Your task to perform on an android device: Go to sound settings Image 0: 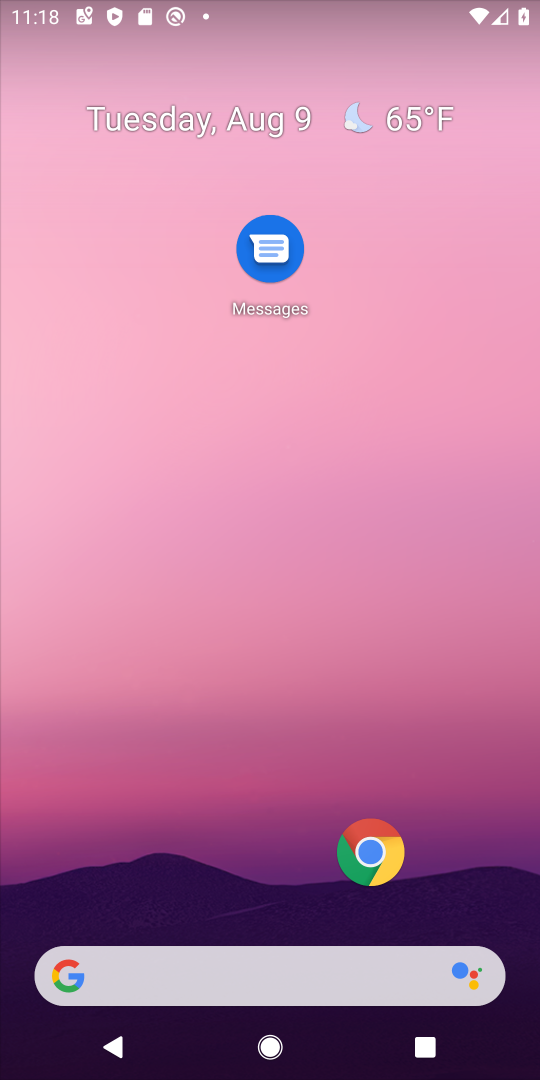
Step 0: drag from (153, 891) to (64, 86)
Your task to perform on an android device: Go to sound settings Image 1: 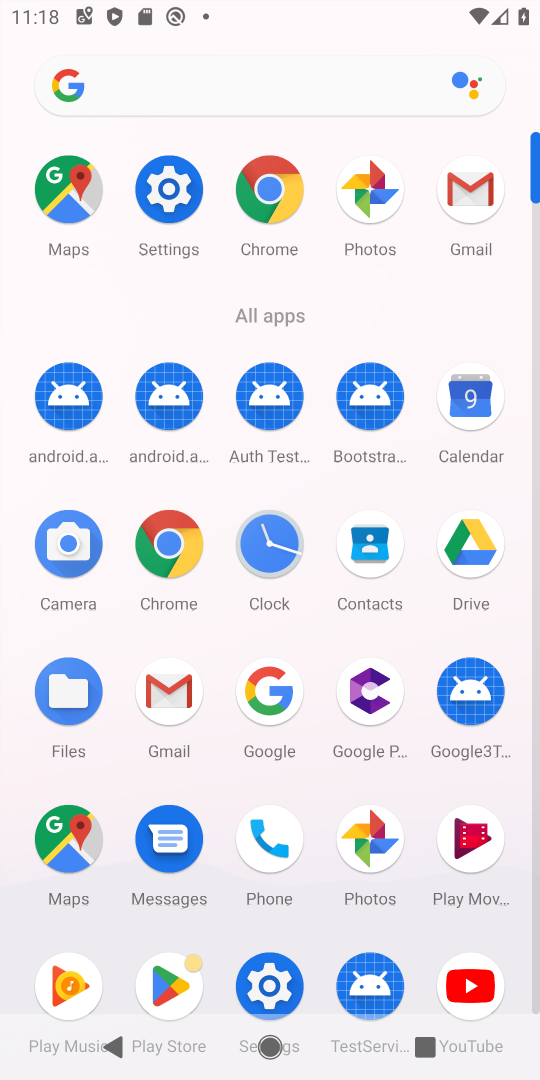
Step 1: click (180, 210)
Your task to perform on an android device: Go to sound settings Image 2: 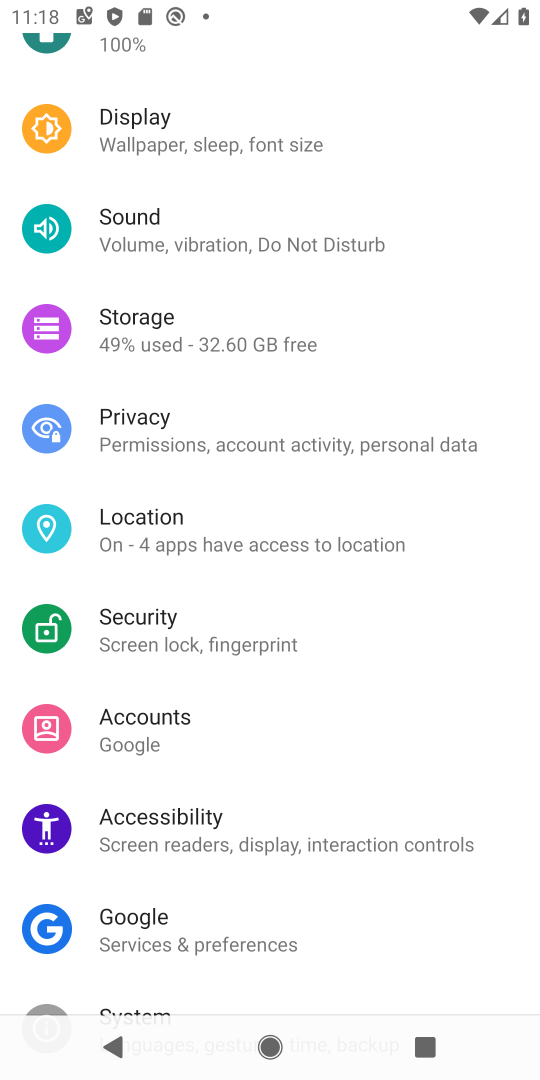
Step 2: click (164, 229)
Your task to perform on an android device: Go to sound settings Image 3: 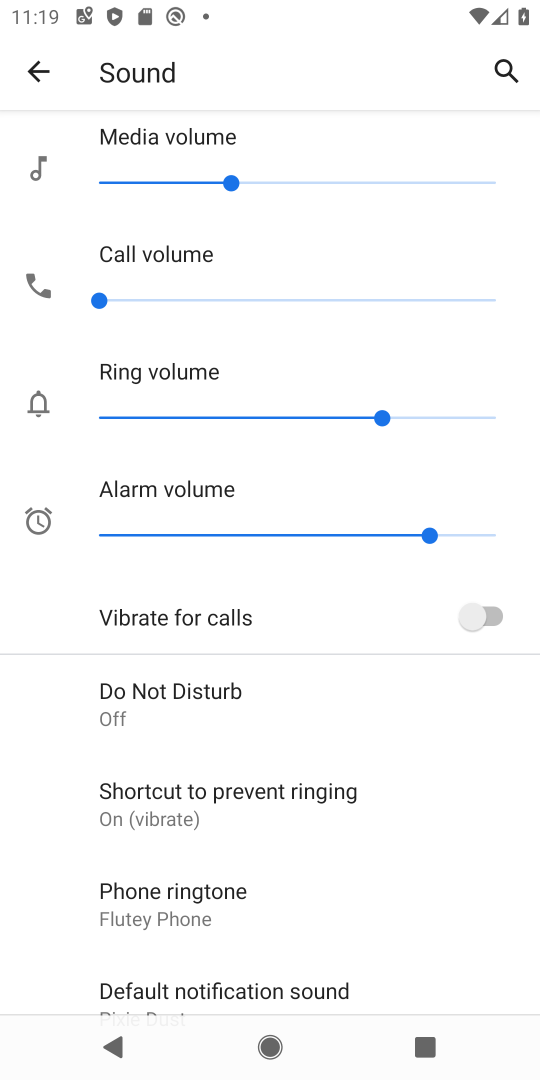
Step 3: task complete